Your task to perform on an android device: uninstall "Life360: Find Family & Friends" Image 0: 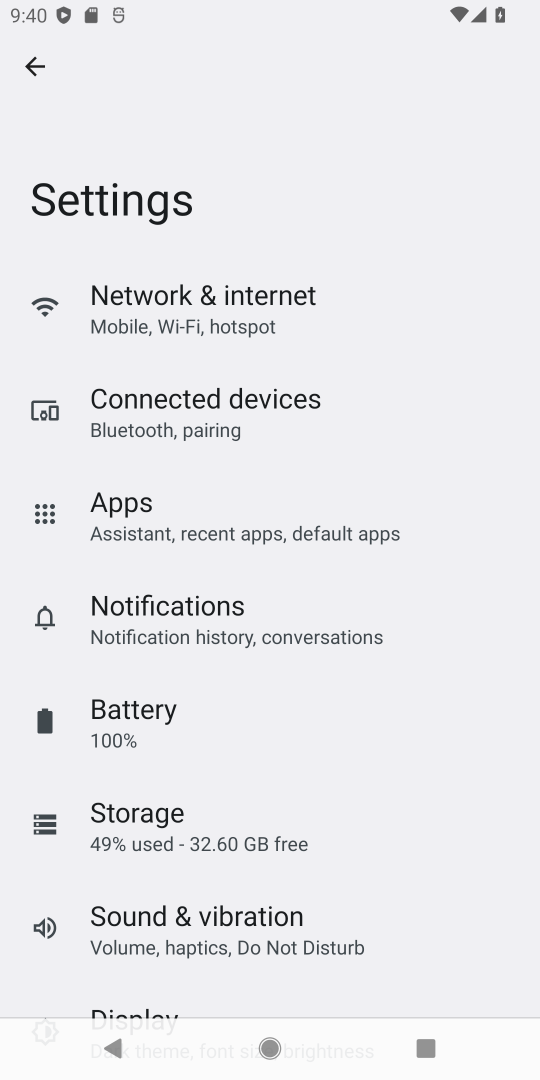
Step 0: task complete